Your task to perform on an android device: Open calendar and show me the fourth week of next month Image 0: 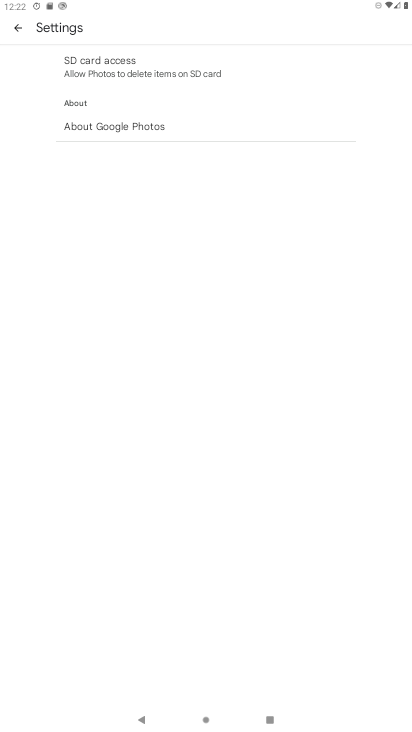
Step 0: press home button
Your task to perform on an android device: Open calendar and show me the fourth week of next month Image 1: 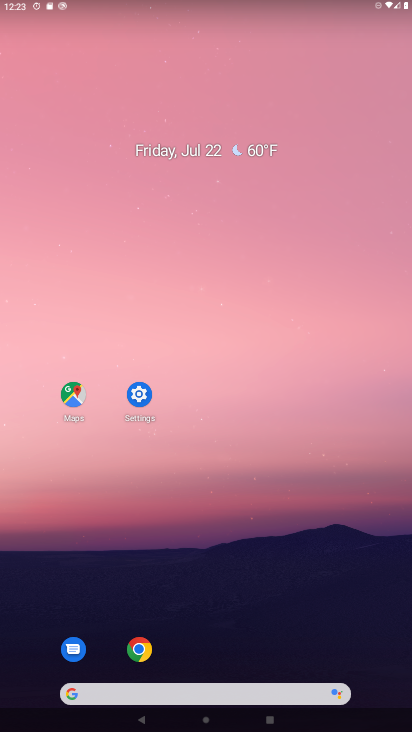
Step 1: press home button
Your task to perform on an android device: Open calendar and show me the fourth week of next month Image 2: 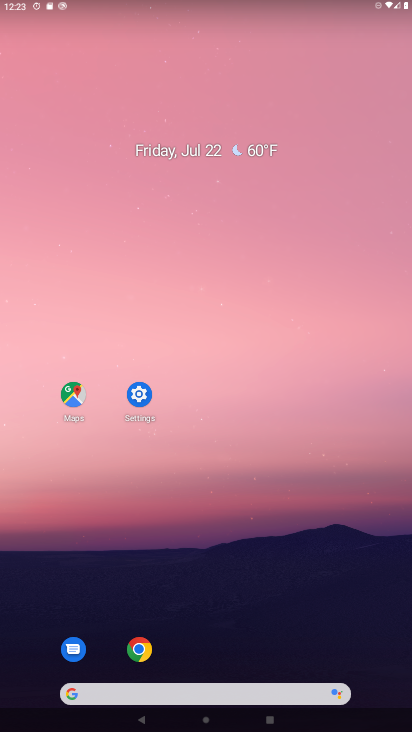
Step 2: press home button
Your task to perform on an android device: Open calendar and show me the fourth week of next month Image 3: 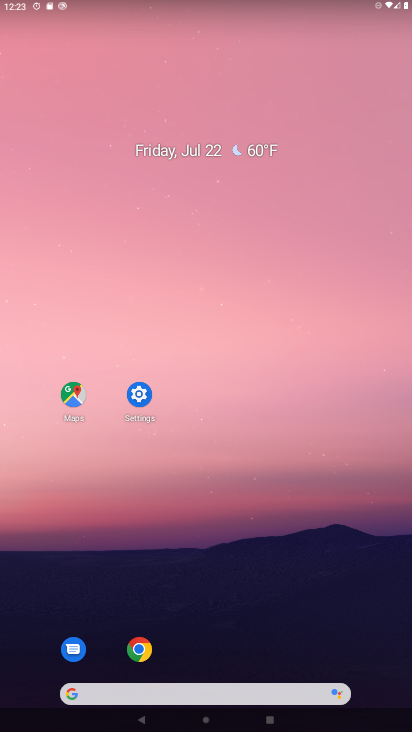
Step 3: click (284, 233)
Your task to perform on an android device: Open calendar and show me the fourth week of next month Image 4: 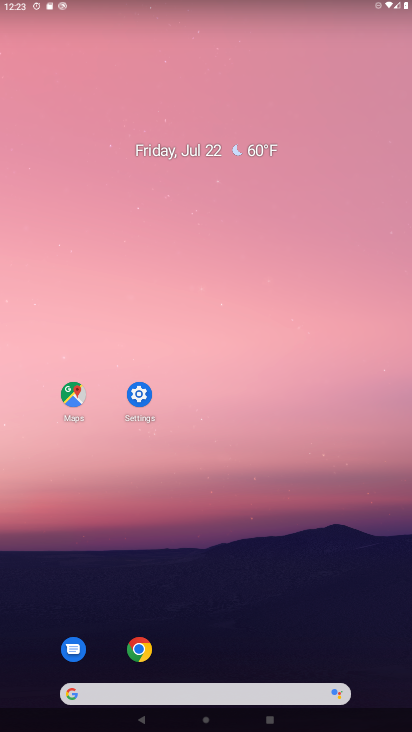
Step 4: drag from (389, 696) to (246, 91)
Your task to perform on an android device: Open calendar and show me the fourth week of next month Image 5: 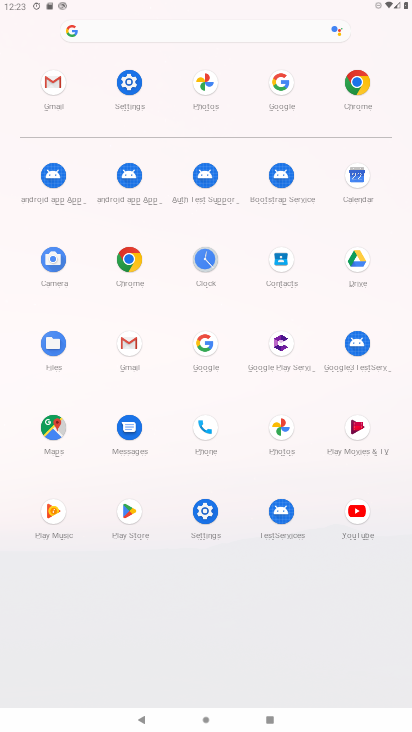
Step 5: click (358, 190)
Your task to perform on an android device: Open calendar and show me the fourth week of next month Image 6: 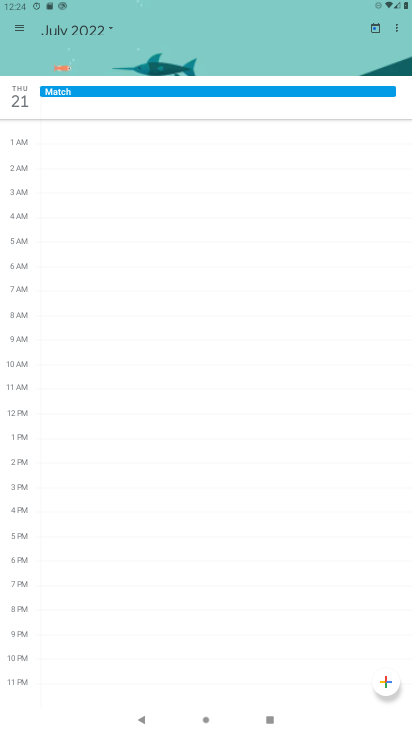
Step 6: task complete